Your task to perform on an android device: Add "usb-c to usb-b" to the cart on walmart.com, then select checkout. Image 0: 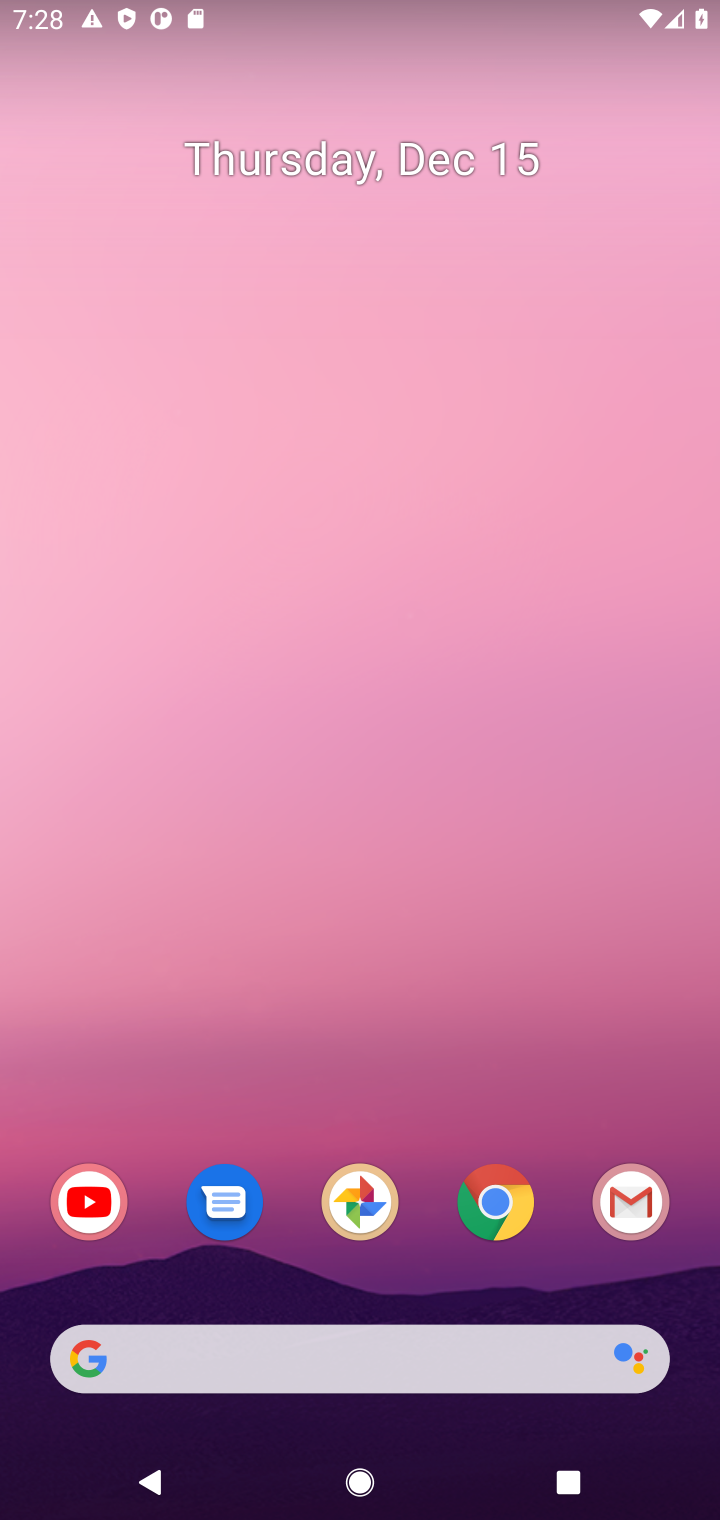
Step 0: click (498, 1195)
Your task to perform on an android device: Add "usb-c to usb-b" to the cart on walmart.com, then select checkout. Image 1: 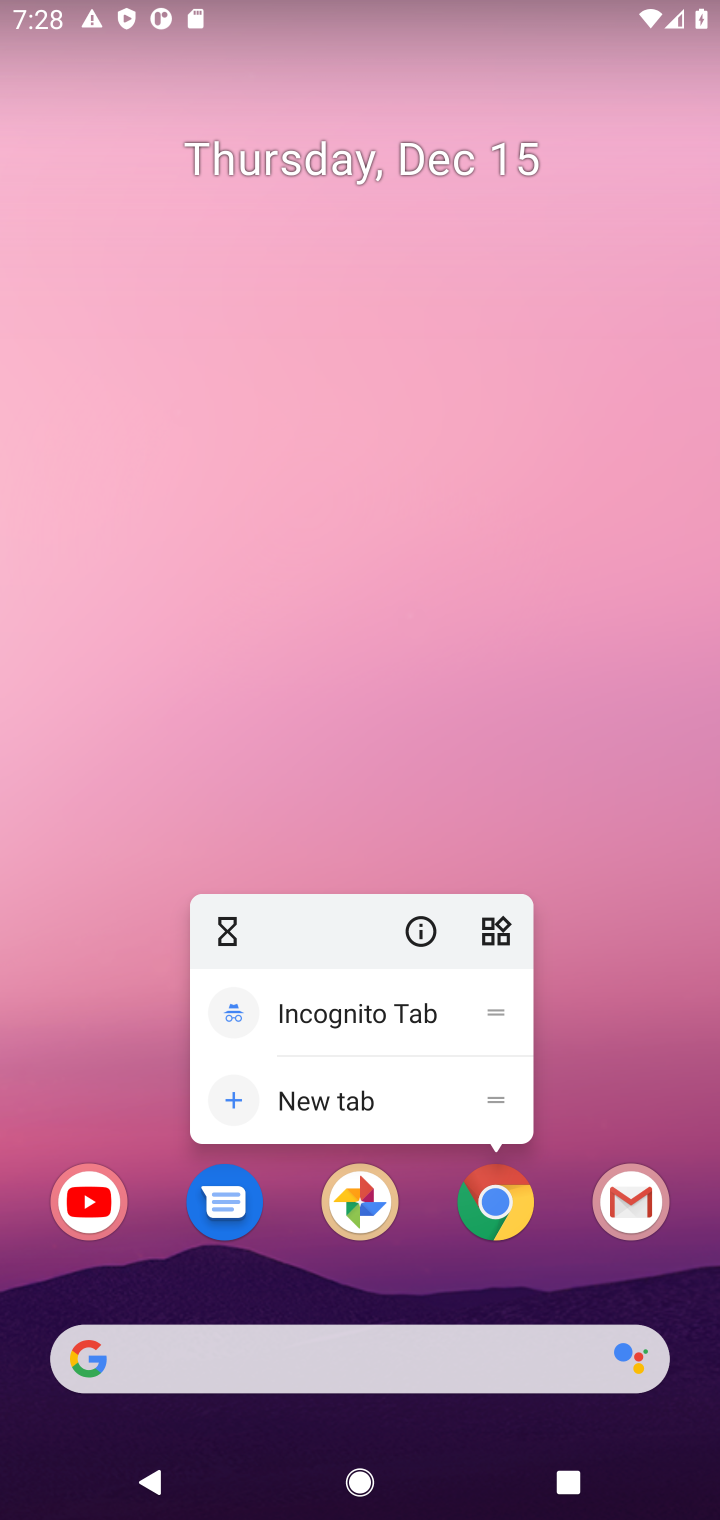
Step 1: click (496, 1214)
Your task to perform on an android device: Add "usb-c to usb-b" to the cart on walmart.com, then select checkout. Image 2: 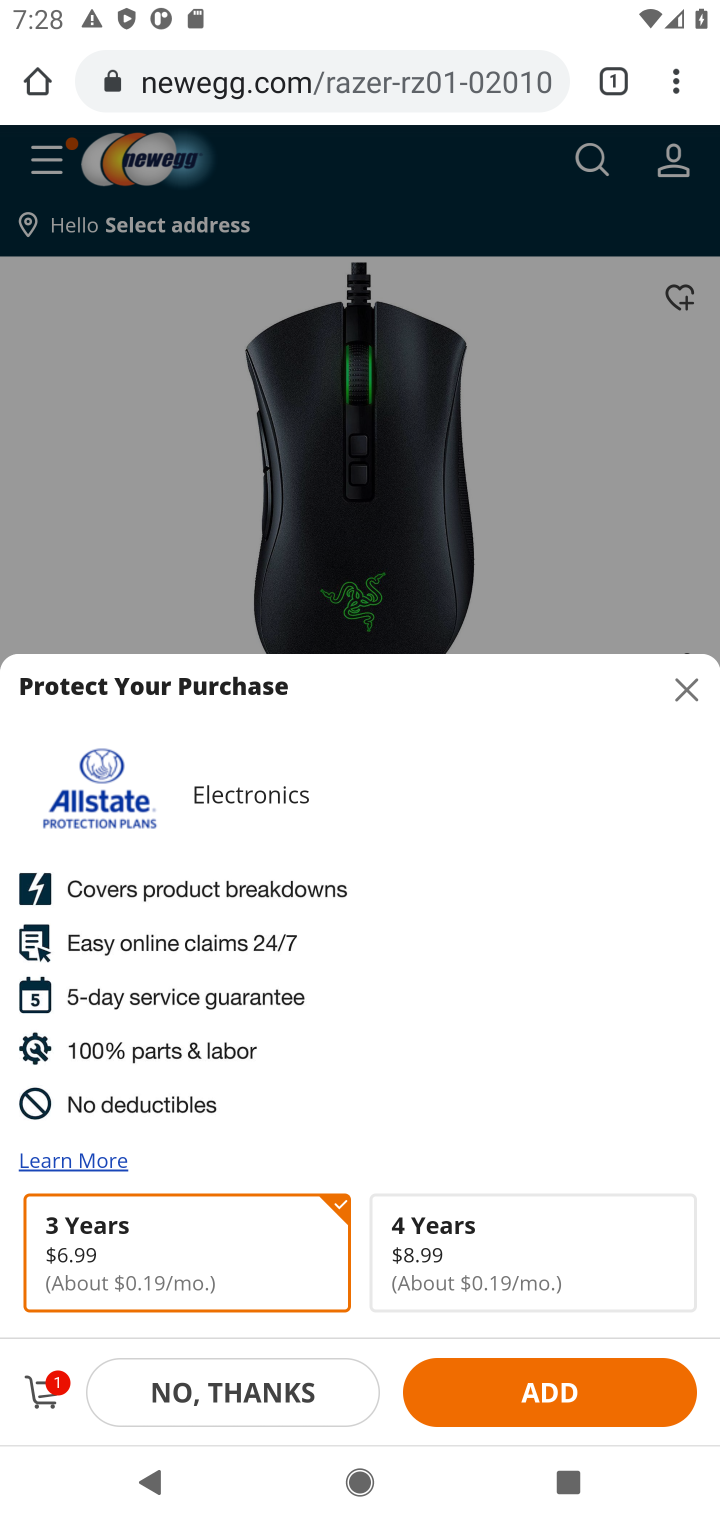
Step 2: click (376, 86)
Your task to perform on an android device: Add "usb-c to usb-b" to the cart on walmart.com, then select checkout. Image 3: 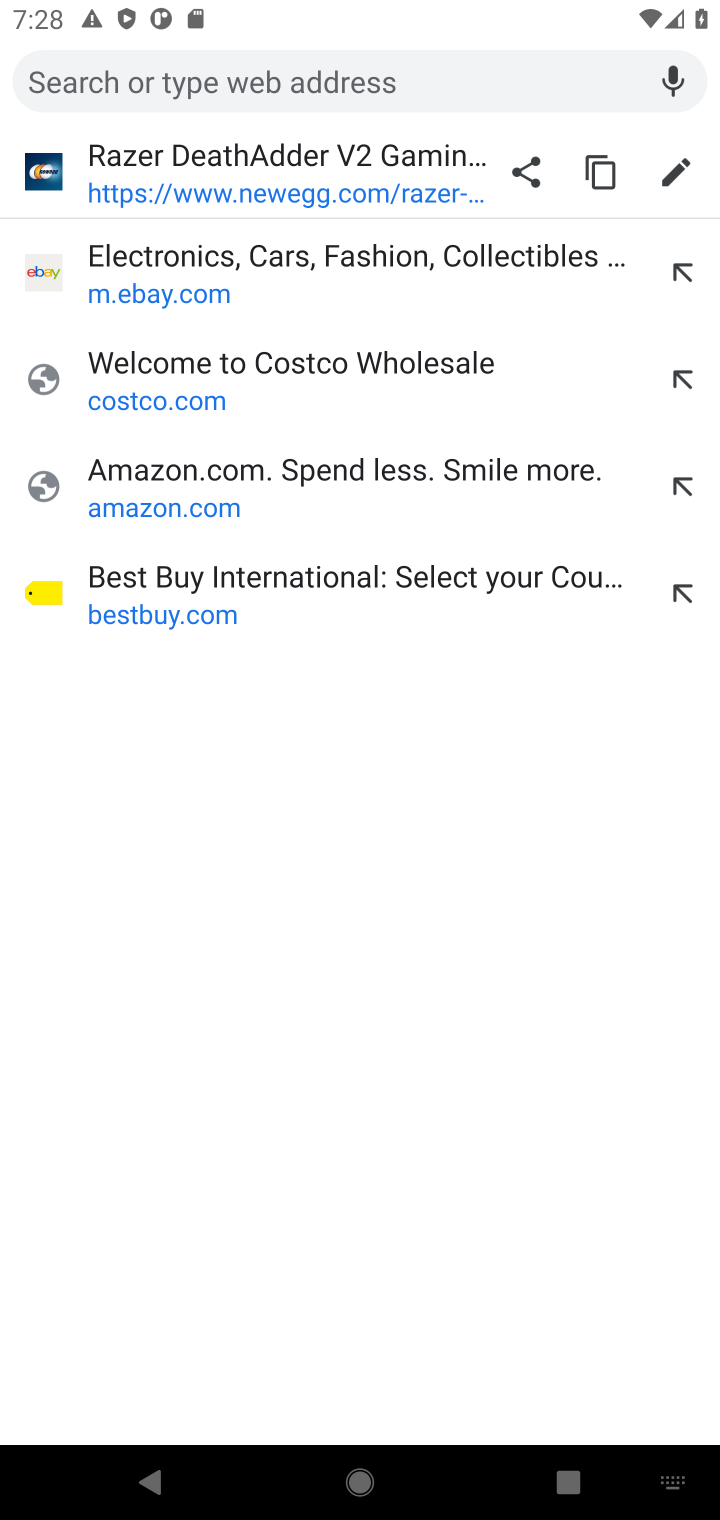
Step 3: type "walmart.com"
Your task to perform on an android device: Add "usb-c to usb-b" to the cart on walmart.com, then select checkout. Image 4: 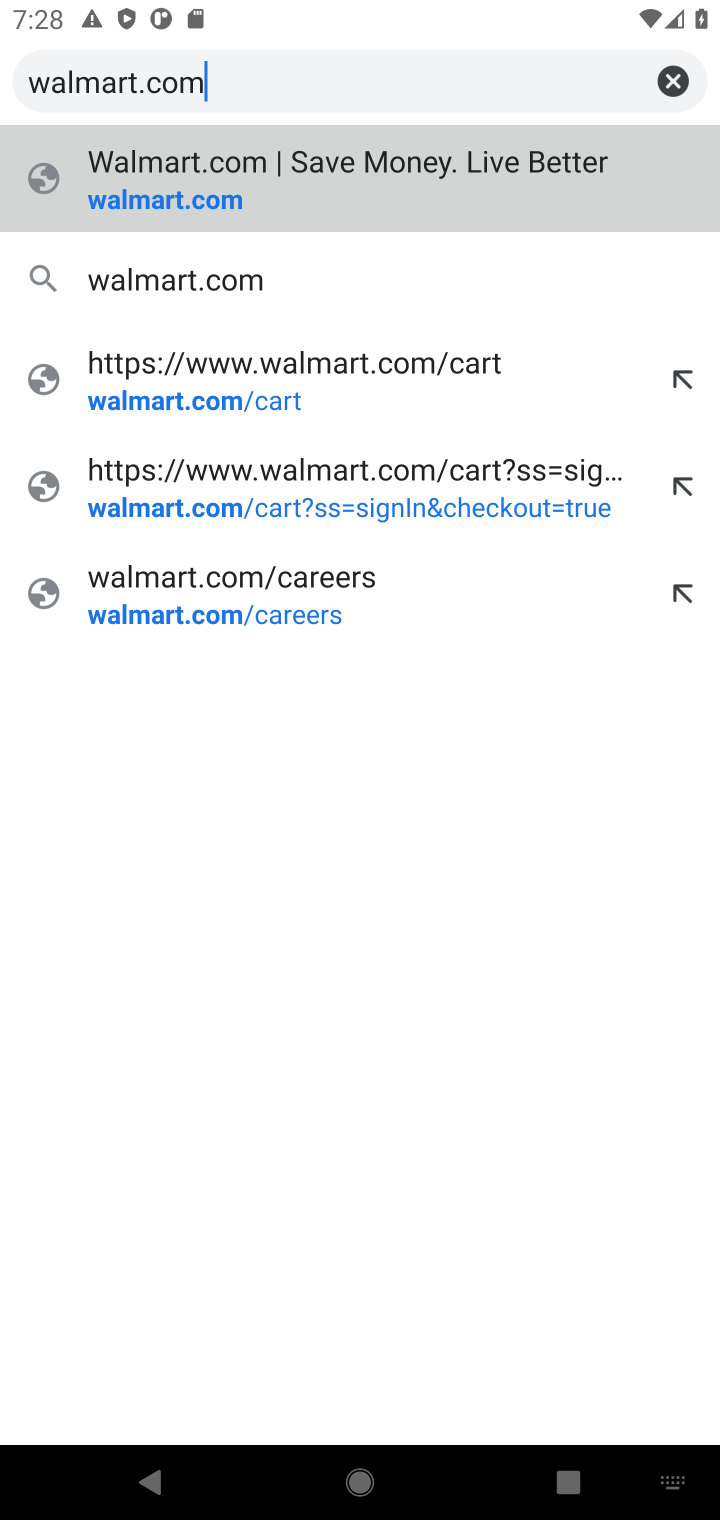
Step 4: click (147, 188)
Your task to perform on an android device: Add "usb-c to usb-b" to the cart on walmart.com, then select checkout. Image 5: 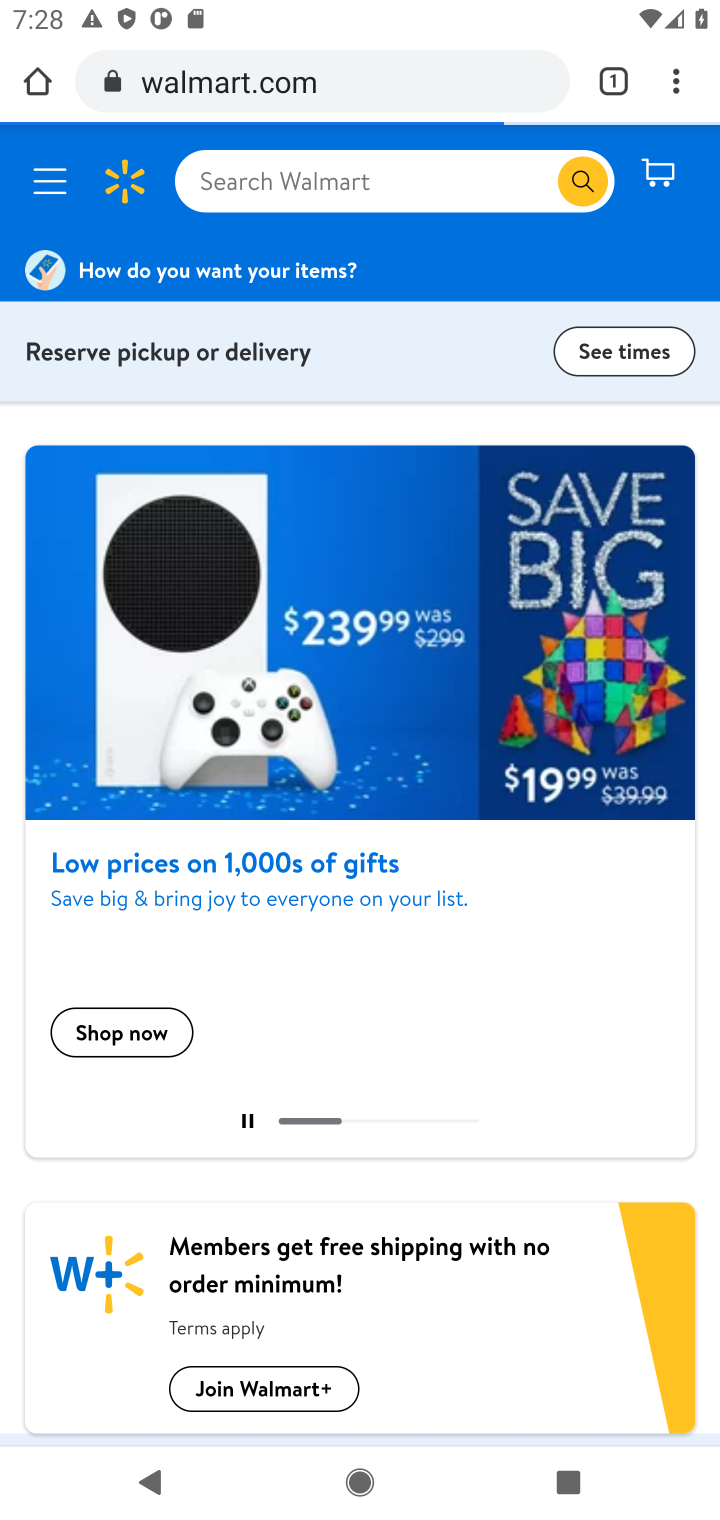
Step 5: click (237, 184)
Your task to perform on an android device: Add "usb-c to usb-b" to the cart on walmart.com, then select checkout. Image 6: 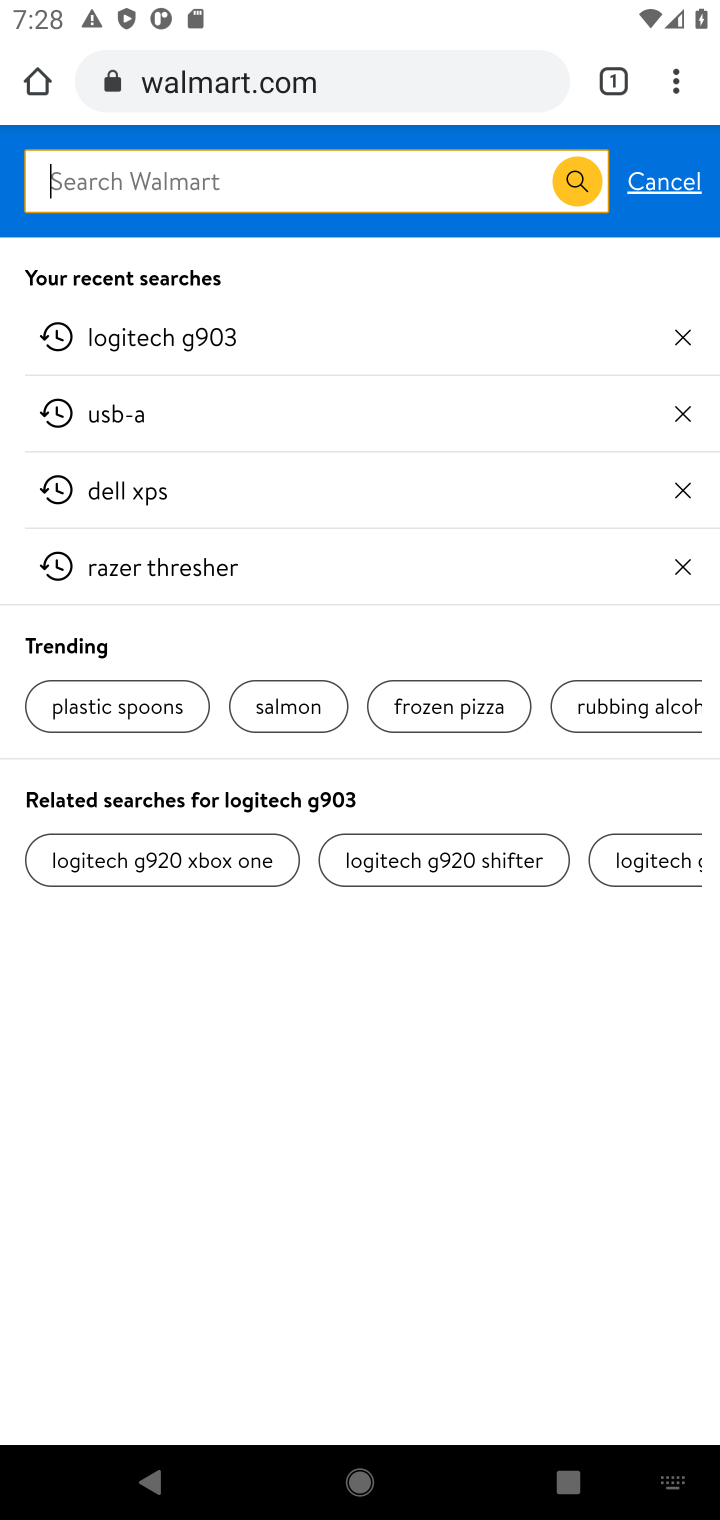
Step 6: type "usb-c to usb-b"
Your task to perform on an android device: Add "usb-c to usb-b" to the cart on walmart.com, then select checkout. Image 7: 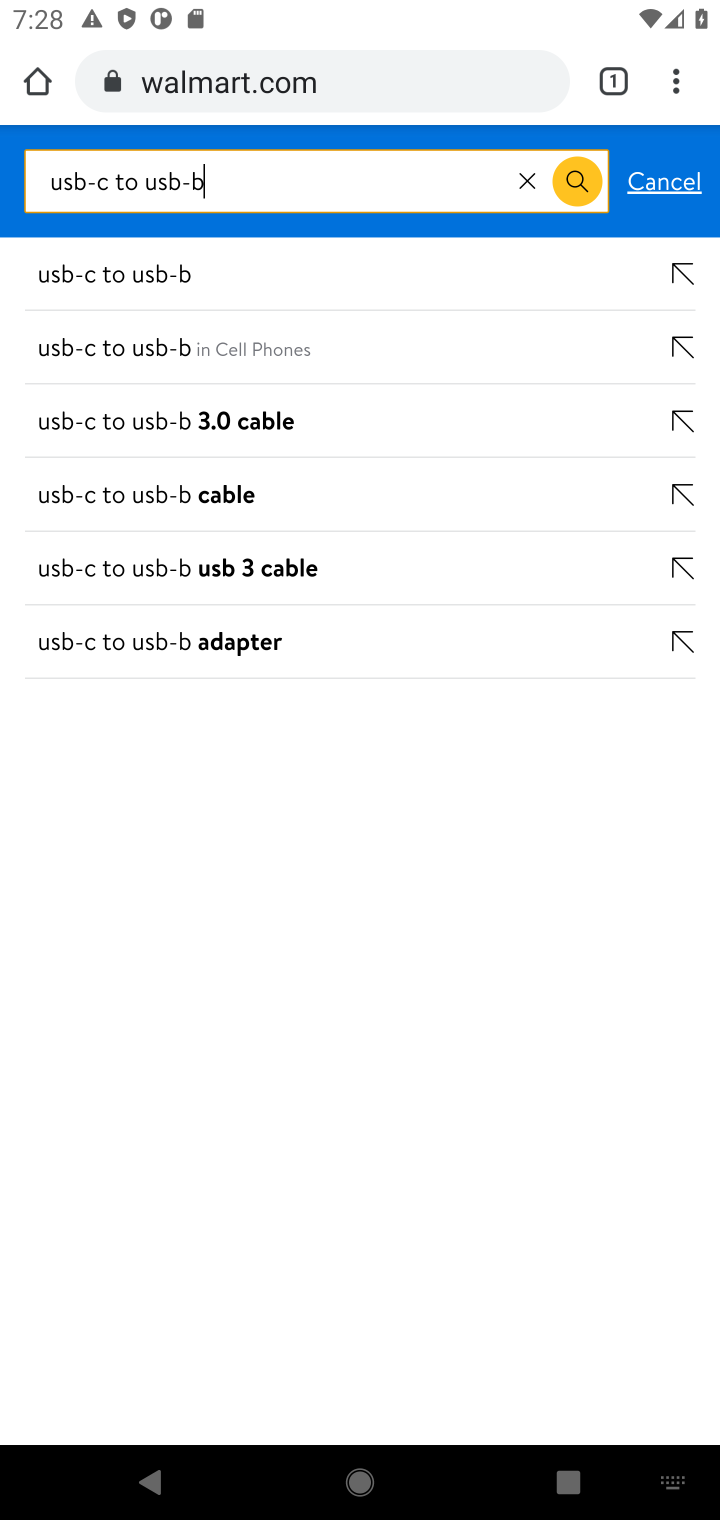
Step 7: click (152, 282)
Your task to perform on an android device: Add "usb-c to usb-b" to the cart on walmart.com, then select checkout. Image 8: 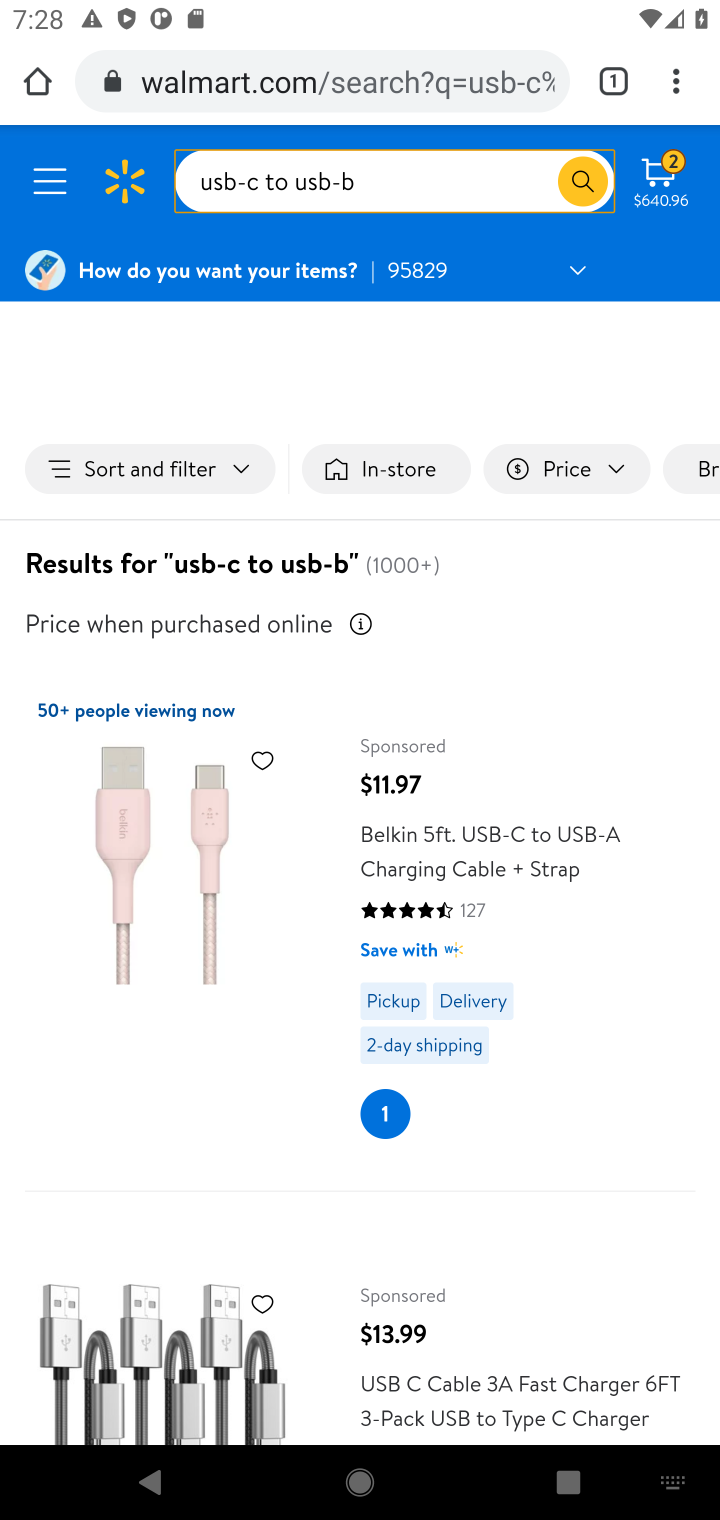
Step 8: drag from (222, 1209) to (251, 663)
Your task to perform on an android device: Add "usb-c to usb-b" to the cart on walmart.com, then select checkout. Image 9: 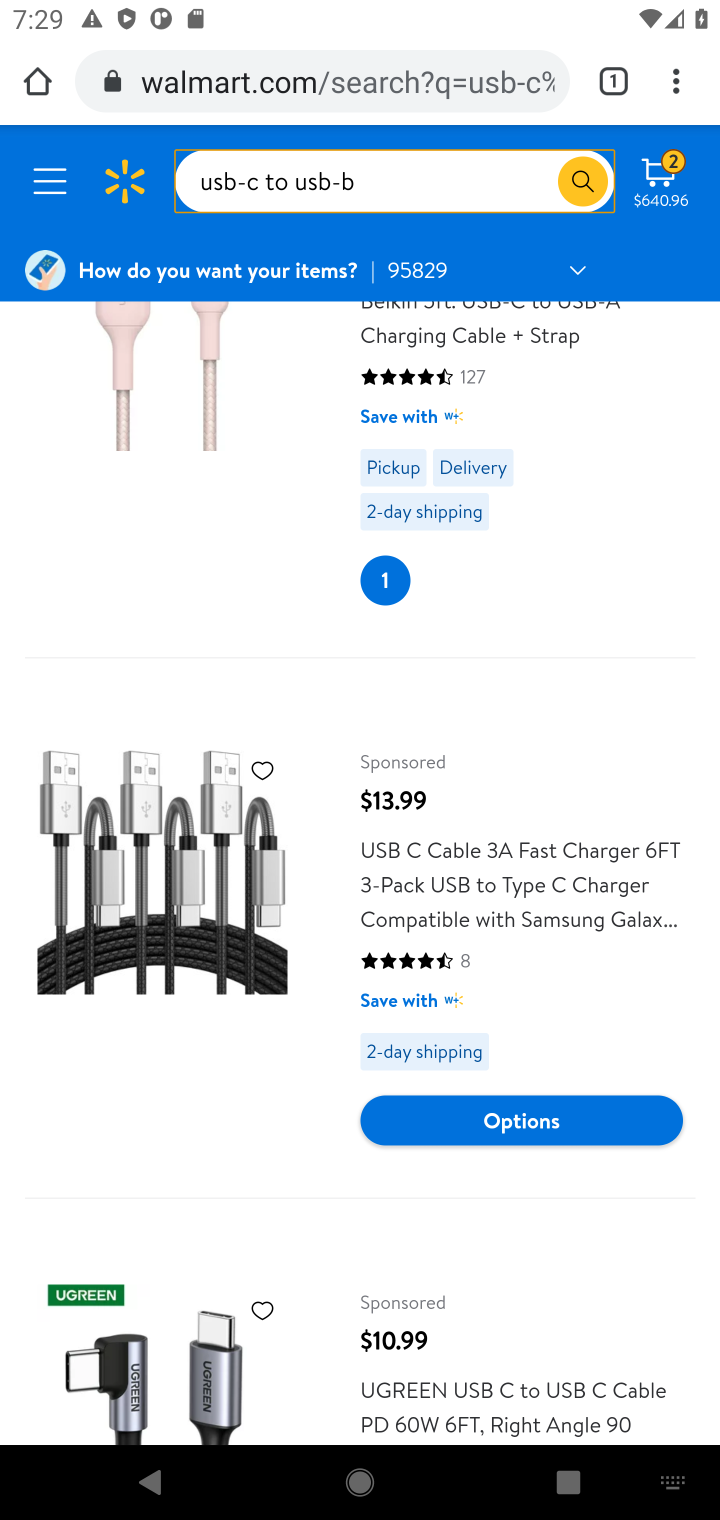
Step 9: drag from (455, 895) to (445, 589)
Your task to perform on an android device: Add "usb-c to usb-b" to the cart on walmart.com, then select checkout. Image 10: 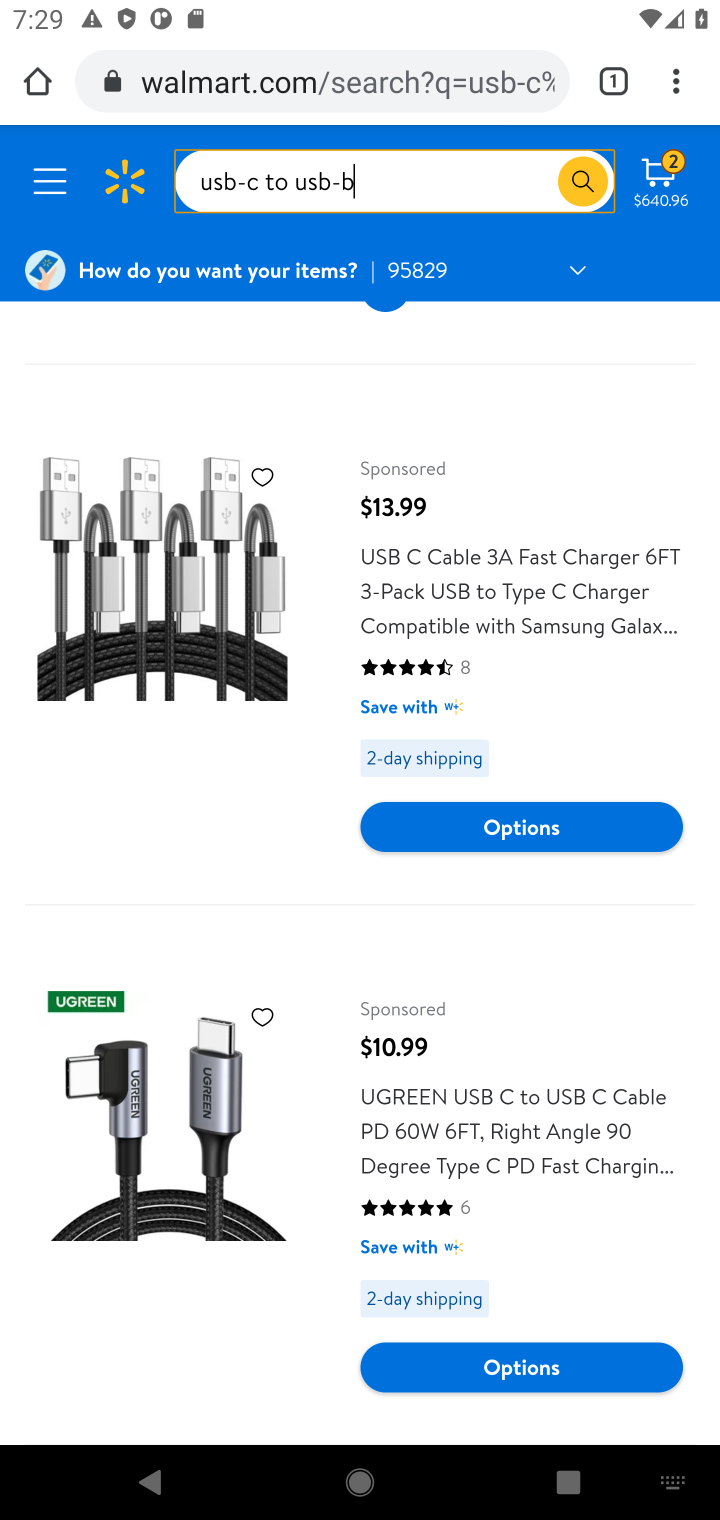
Step 10: drag from (489, 1192) to (497, 789)
Your task to perform on an android device: Add "usb-c to usb-b" to the cart on walmart.com, then select checkout. Image 11: 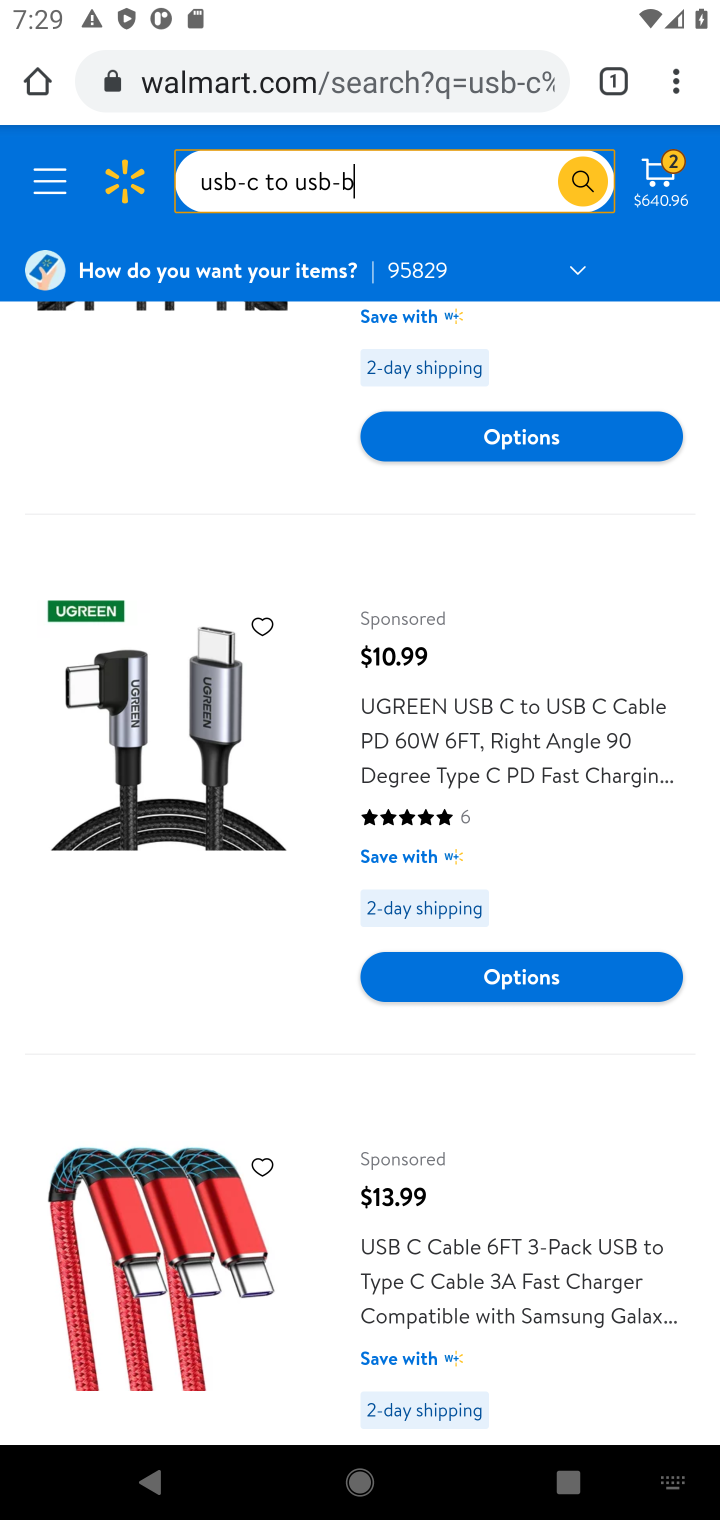
Step 11: drag from (401, 1198) to (418, 827)
Your task to perform on an android device: Add "usb-c to usb-b" to the cart on walmart.com, then select checkout. Image 12: 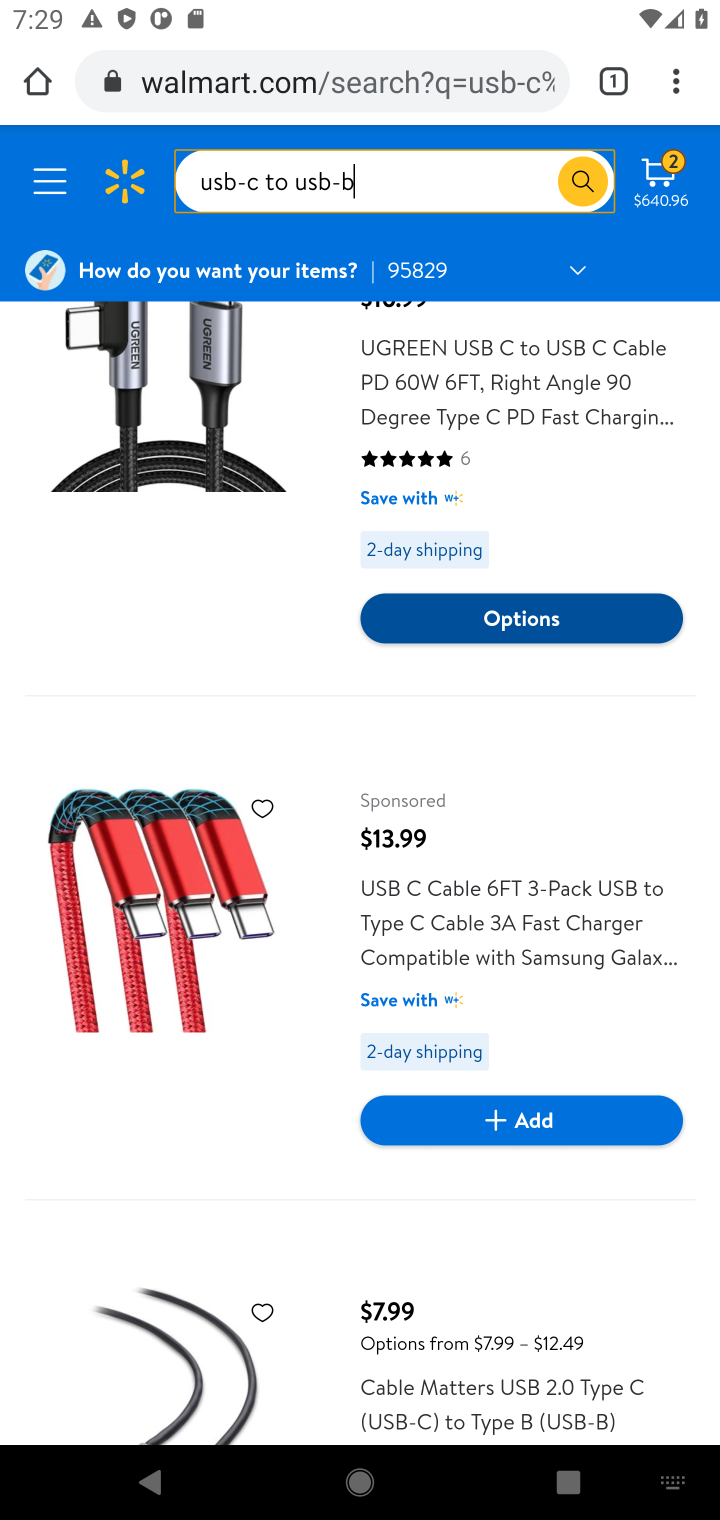
Step 12: drag from (375, 1164) to (371, 683)
Your task to perform on an android device: Add "usb-c to usb-b" to the cart on walmart.com, then select checkout. Image 13: 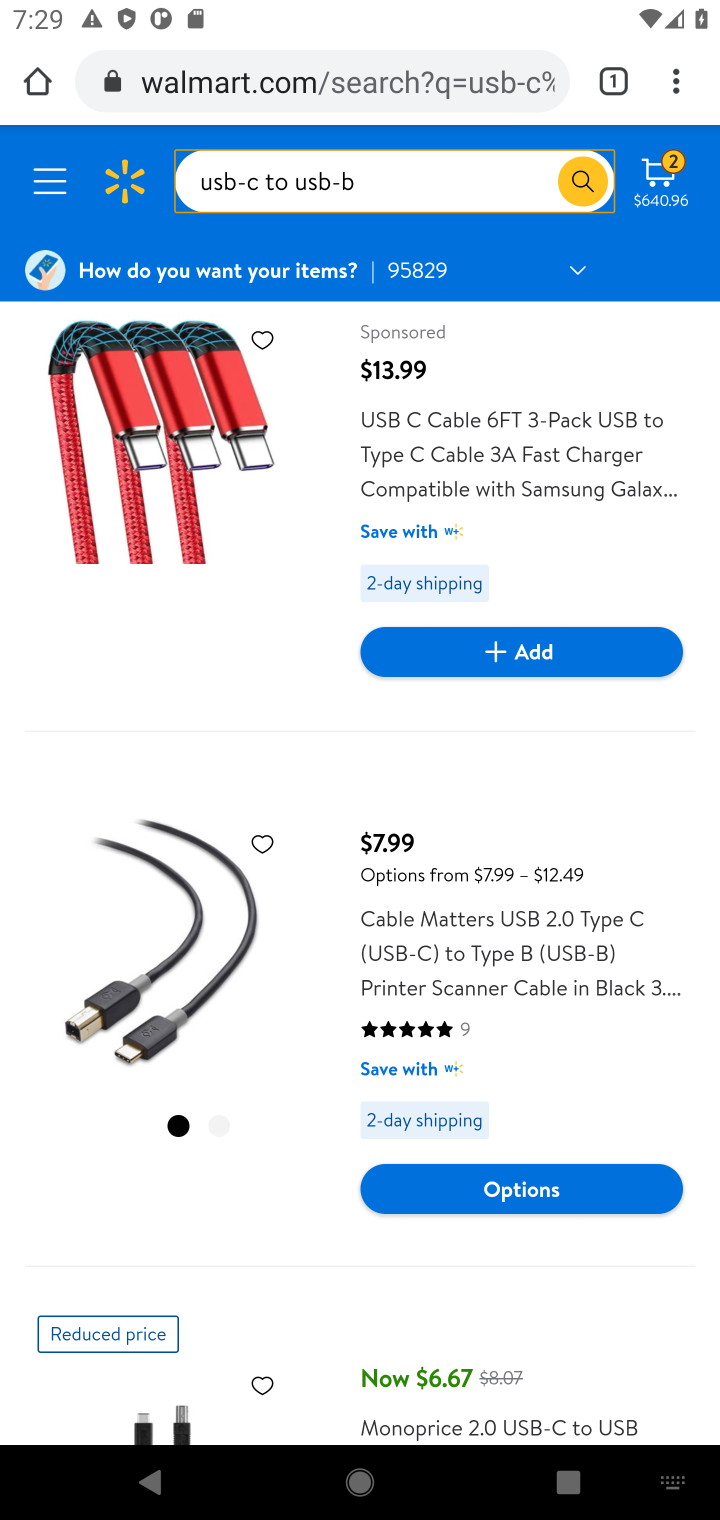
Step 13: click (474, 945)
Your task to perform on an android device: Add "usb-c to usb-b" to the cart on walmart.com, then select checkout. Image 14: 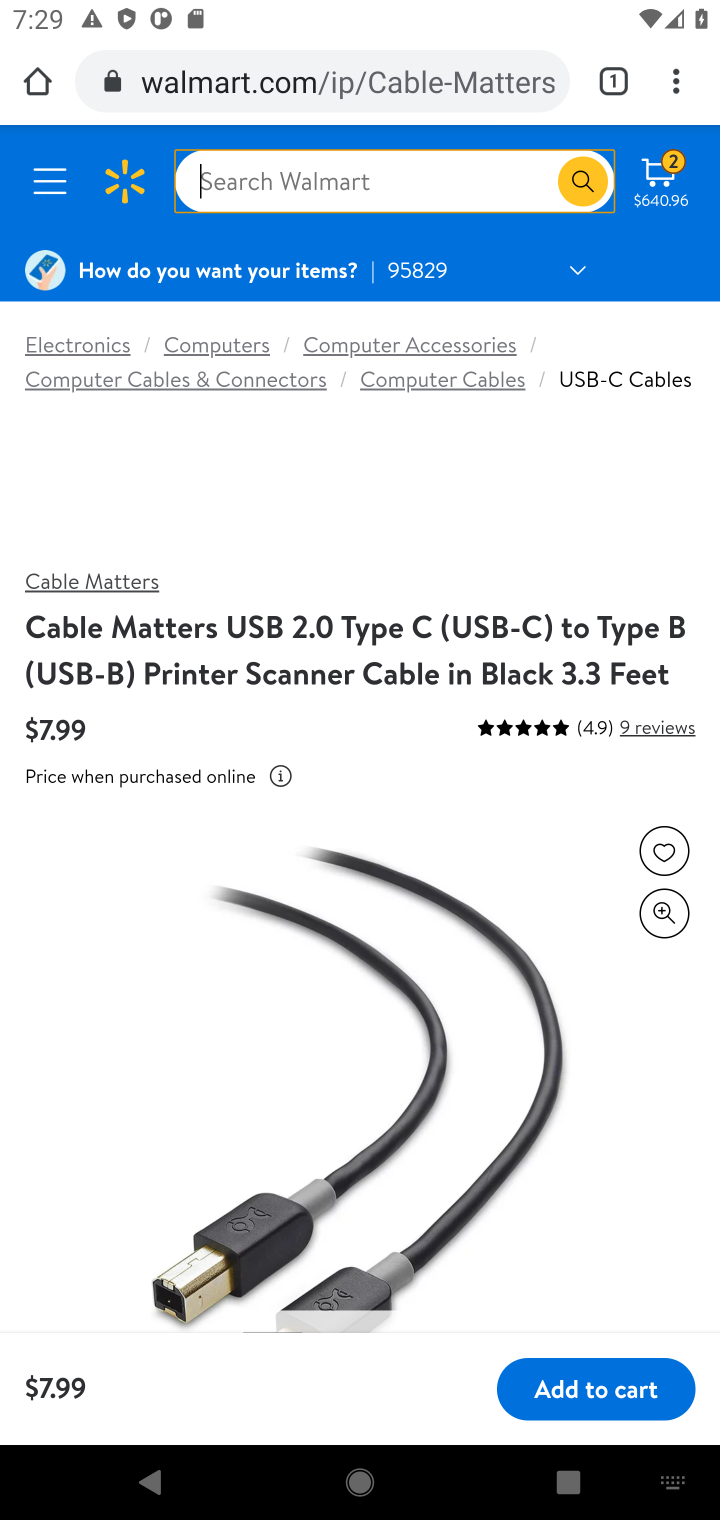
Step 14: click (594, 1398)
Your task to perform on an android device: Add "usb-c to usb-b" to the cart on walmart.com, then select checkout. Image 15: 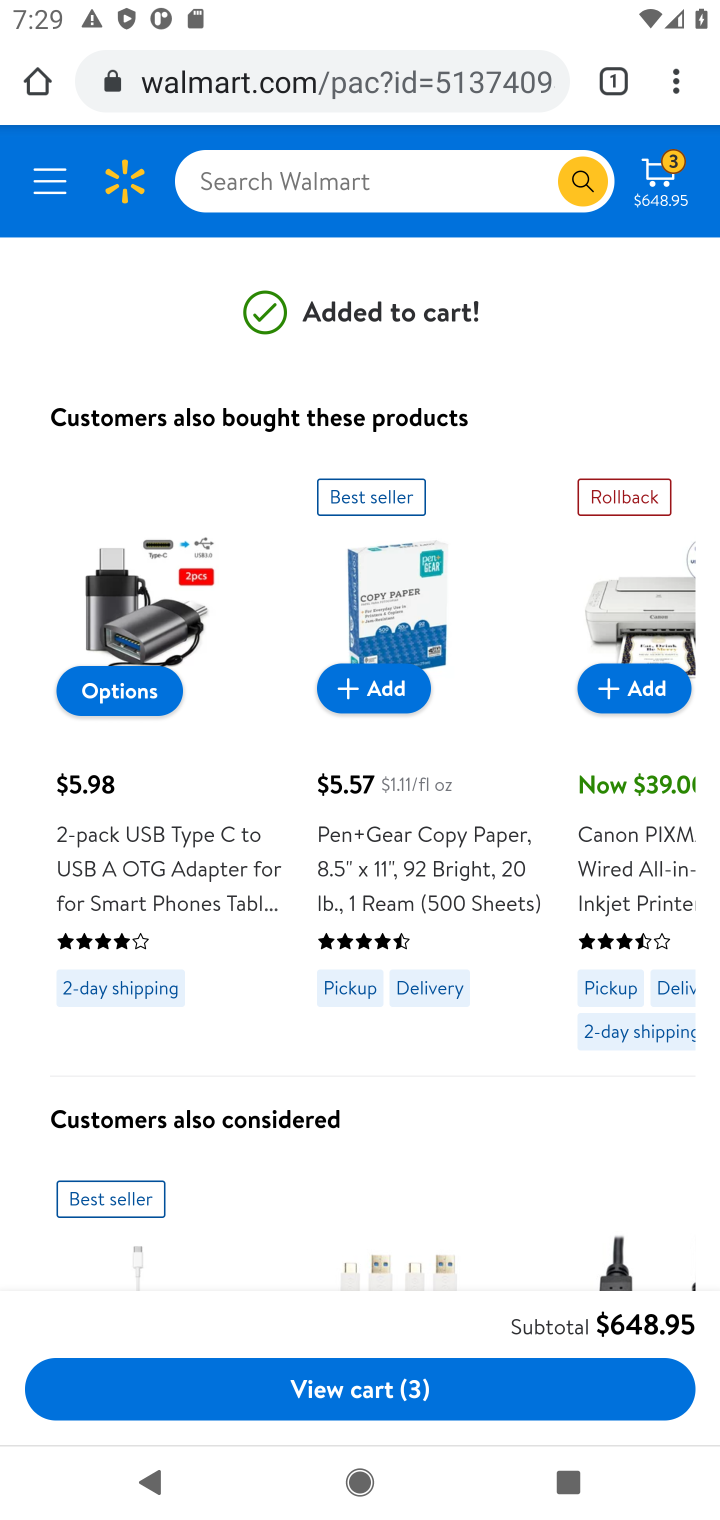
Step 15: click (419, 1385)
Your task to perform on an android device: Add "usb-c to usb-b" to the cart on walmart.com, then select checkout. Image 16: 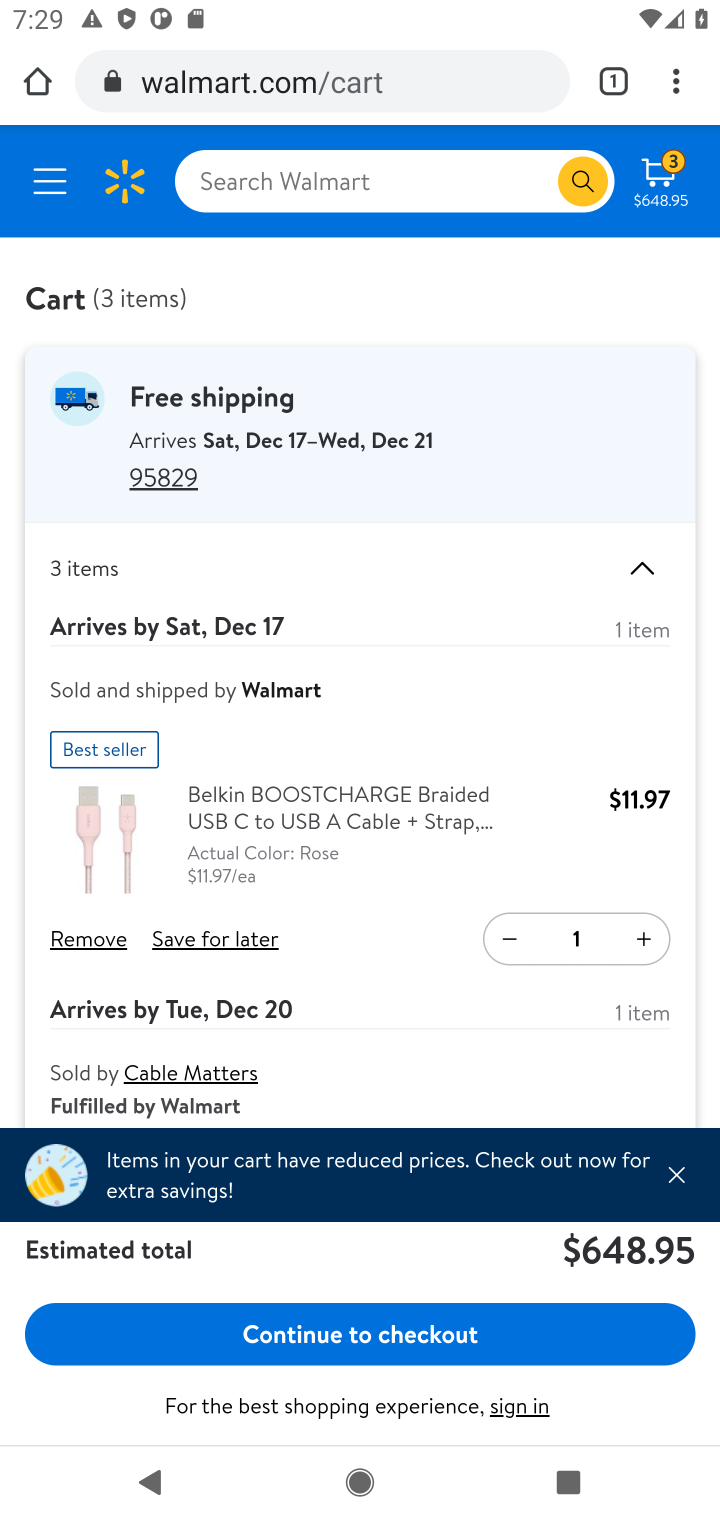
Step 16: click (413, 1350)
Your task to perform on an android device: Add "usb-c to usb-b" to the cart on walmart.com, then select checkout. Image 17: 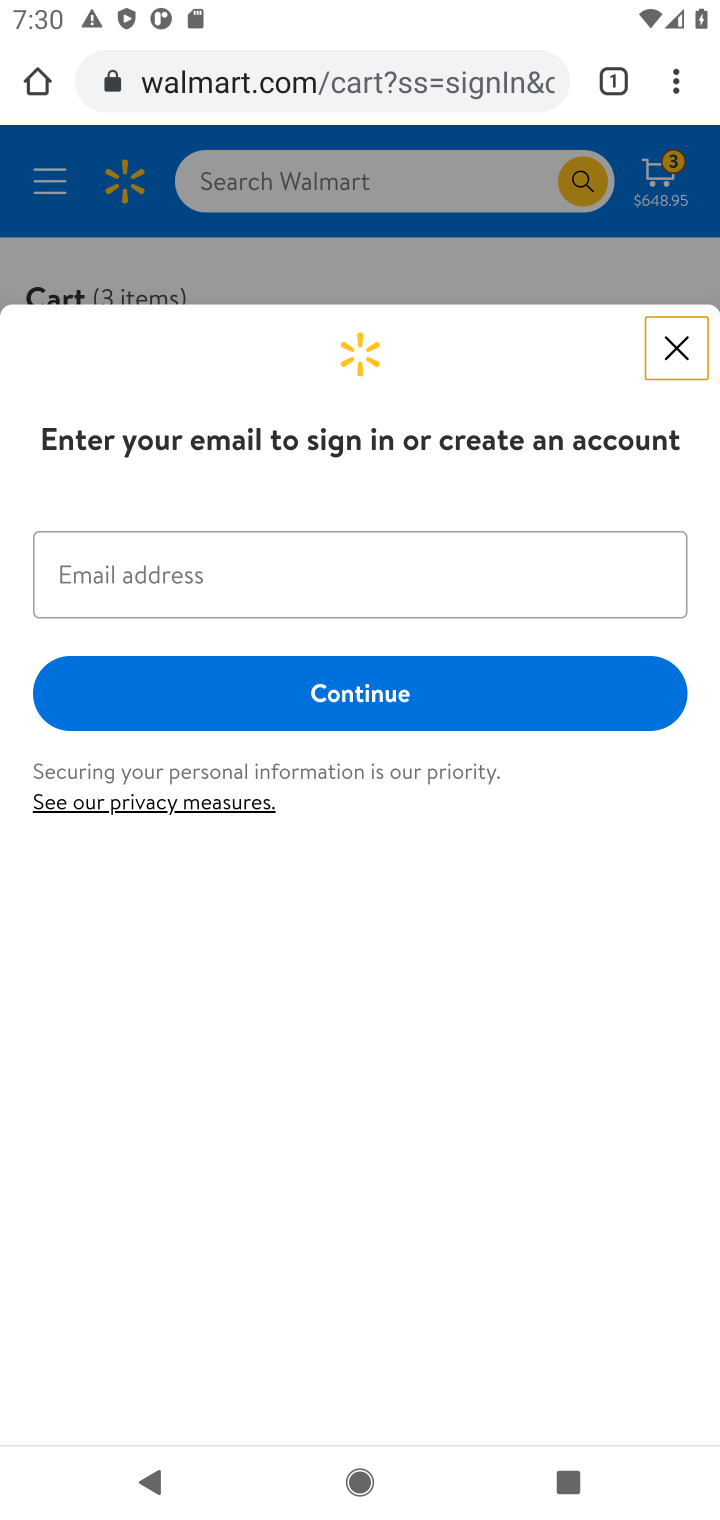
Step 17: task complete